Your task to perform on an android device: Add macbook pro 15 inch to the cart on ebay.com, then select checkout. Image 0: 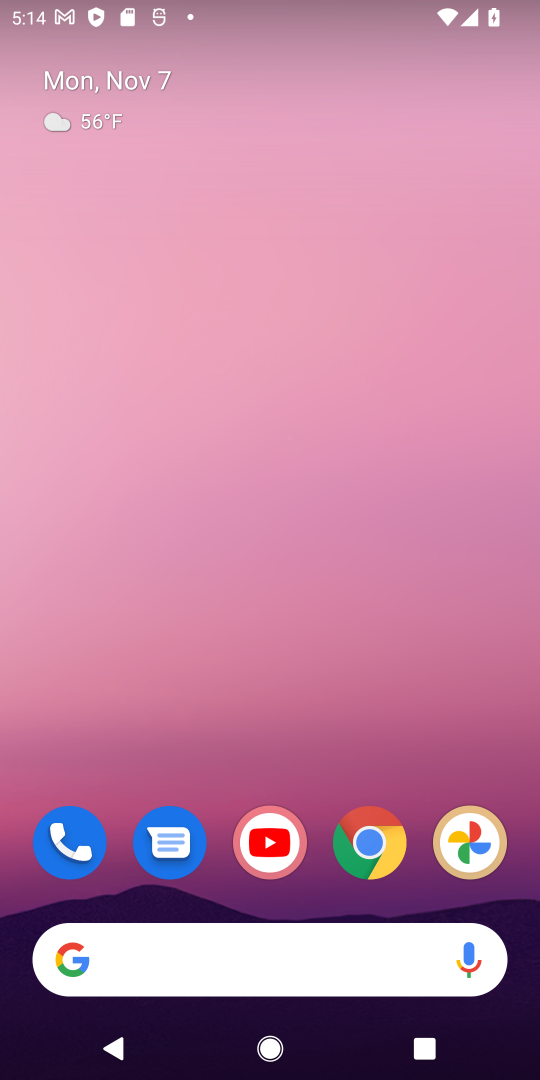
Step 0: click (359, 842)
Your task to perform on an android device: Add macbook pro 15 inch to the cart on ebay.com, then select checkout. Image 1: 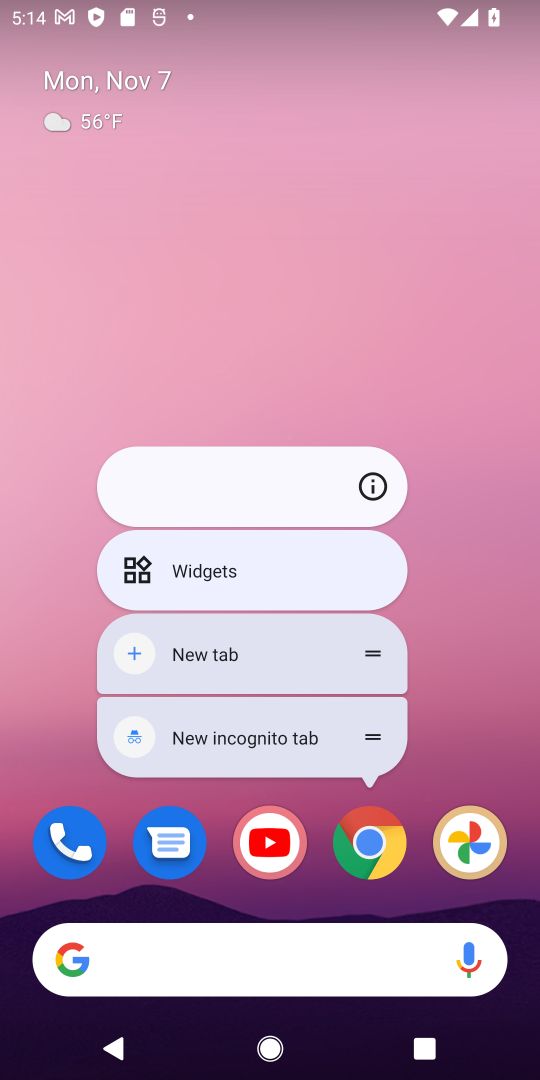
Step 1: click (372, 852)
Your task to perform on an android device: Add macbook pro 15 inch to the cart on ebay.com, then select checkout. Image 2: 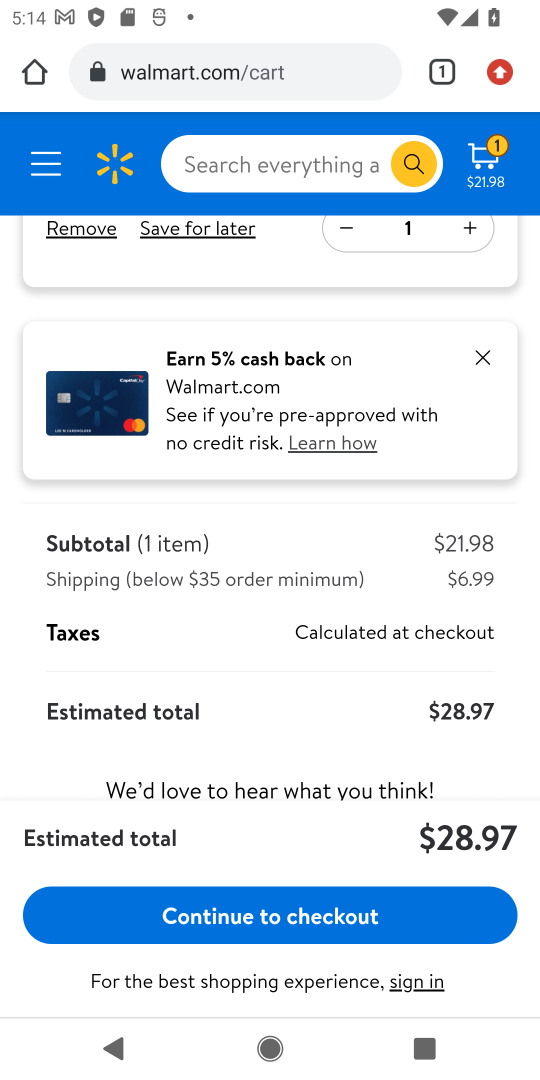
Step 2: click (271, 72)
Your task to perform on an android device: Add macbook pro 15 inch to the cart on ebay.com, then select checkout. Image 3: 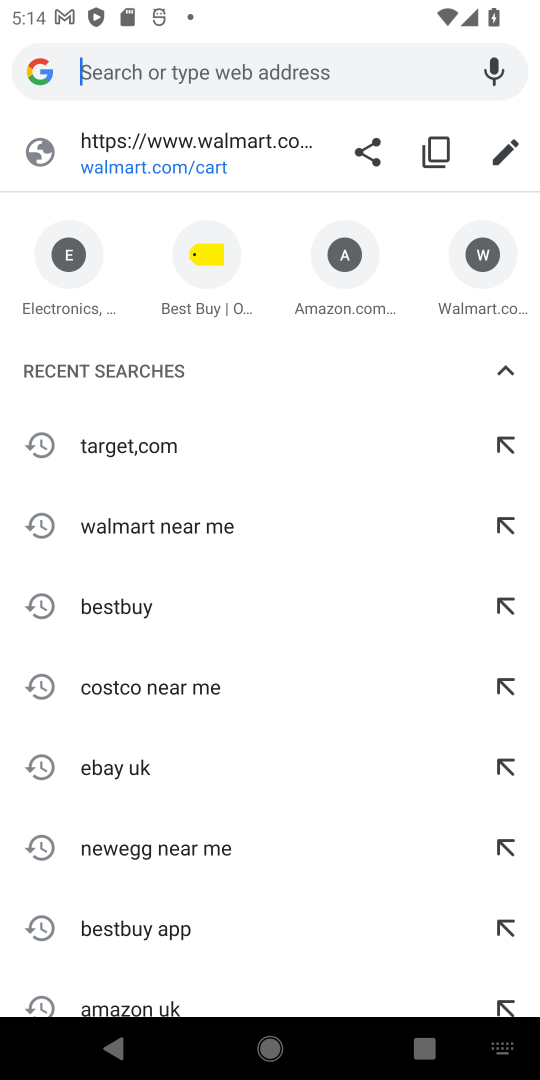
Step 3: click (56, 303)
Your task to perform on an android device: Add macbook pro 15 inch to the cart on ebay.com, then select checkout. Image 4: 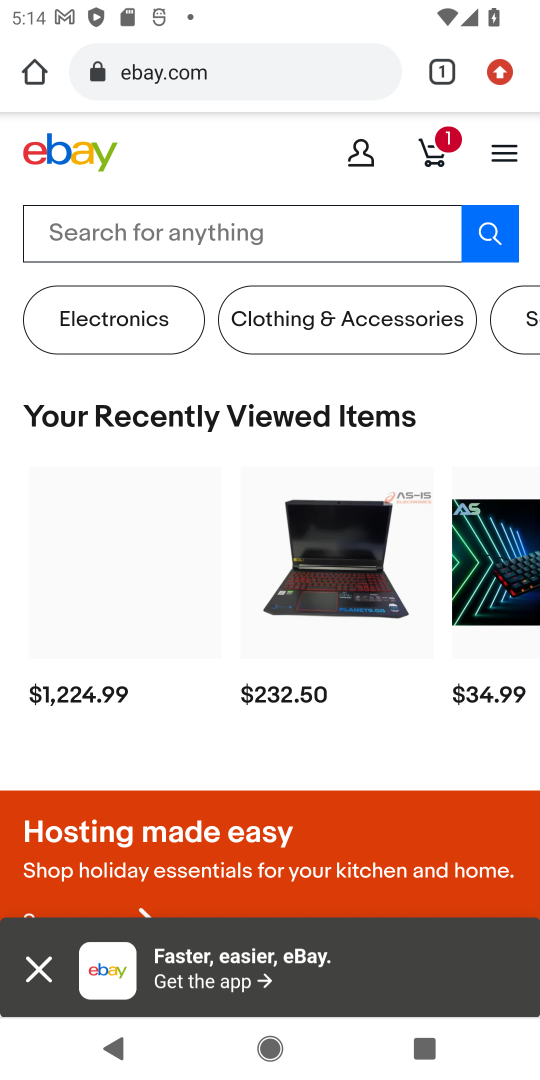
Step 4: click (232, 238)
Your task to perform on an android device: Add macbook pro 15 inch to the cart on ebay.com, then select checkout. Image 5: 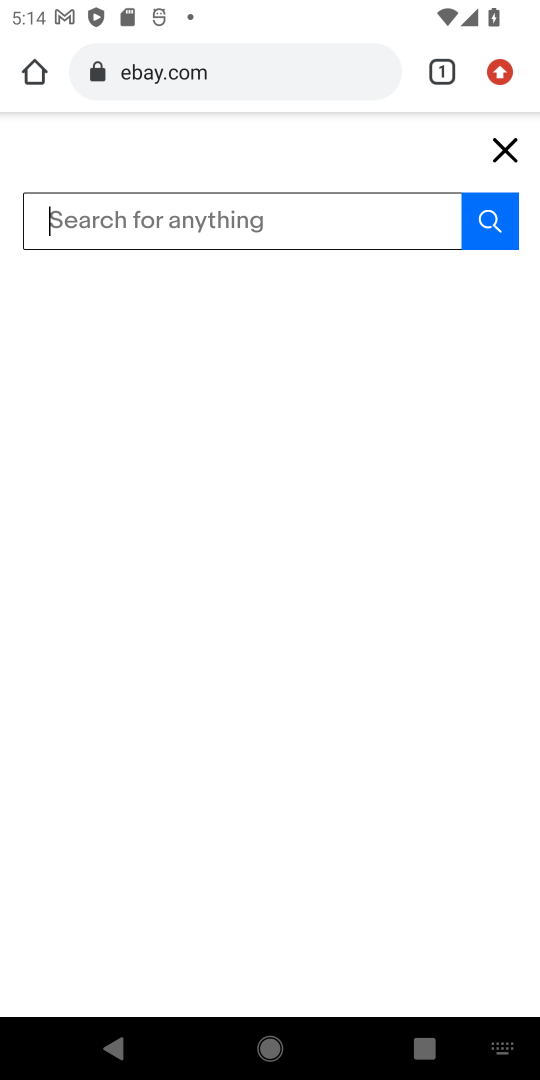
Step 5: type " macbook pro 15 inch"
Your task to perform on an android device: Add macbook pro 15 inch to the cart on ebay.com, then select checkout. Image 6: 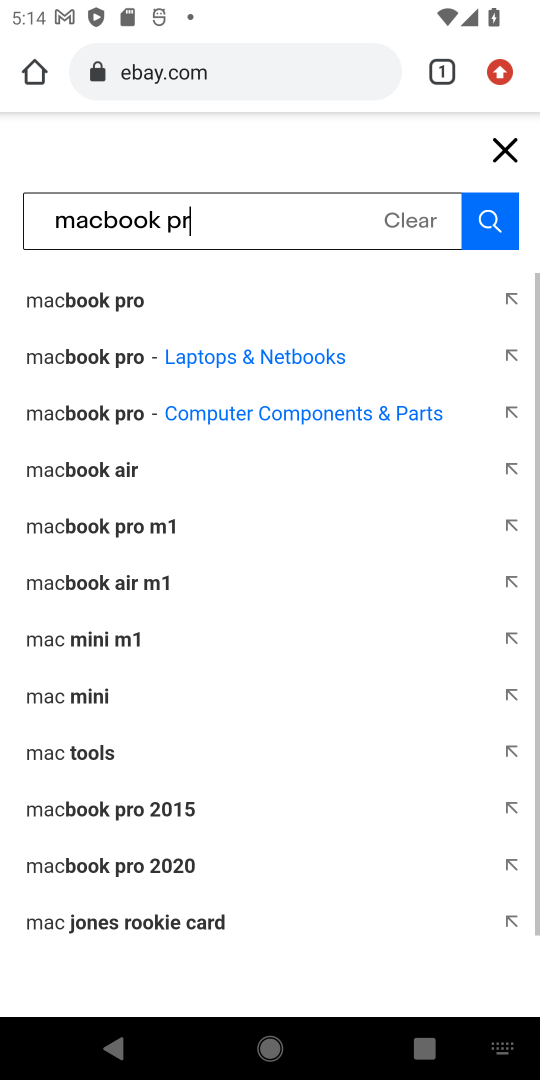
Step 6: press enter
Your task to perform on an android device: Add macbook pro 15 inch to the cart on ebay.com, then select checkout. Image 7: 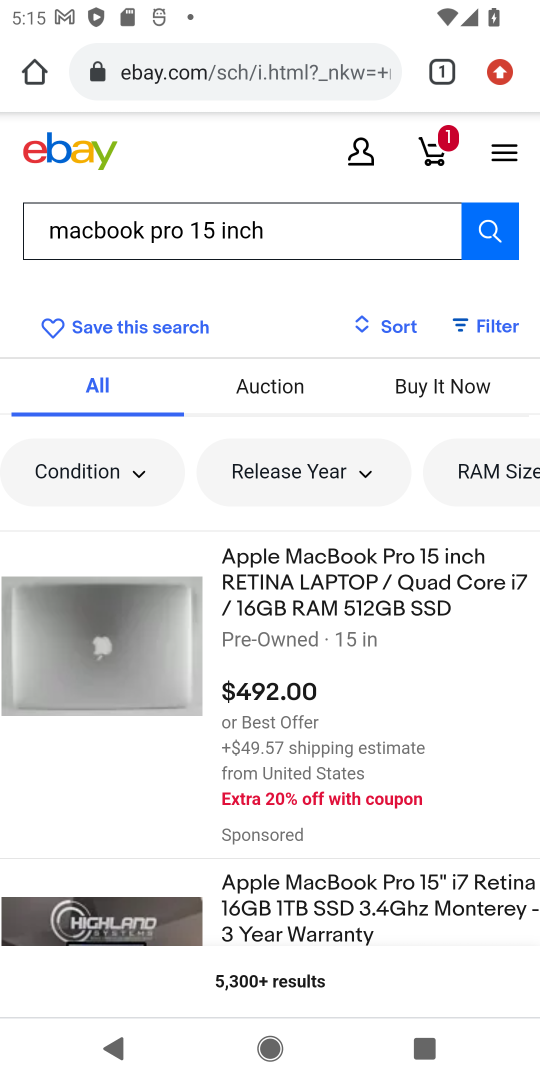
Step 7: click (383, 606)
Your task to perform on an android device: Add macbook pro 15 inch to the cart on ebay.com, then select checkout. Image 8: 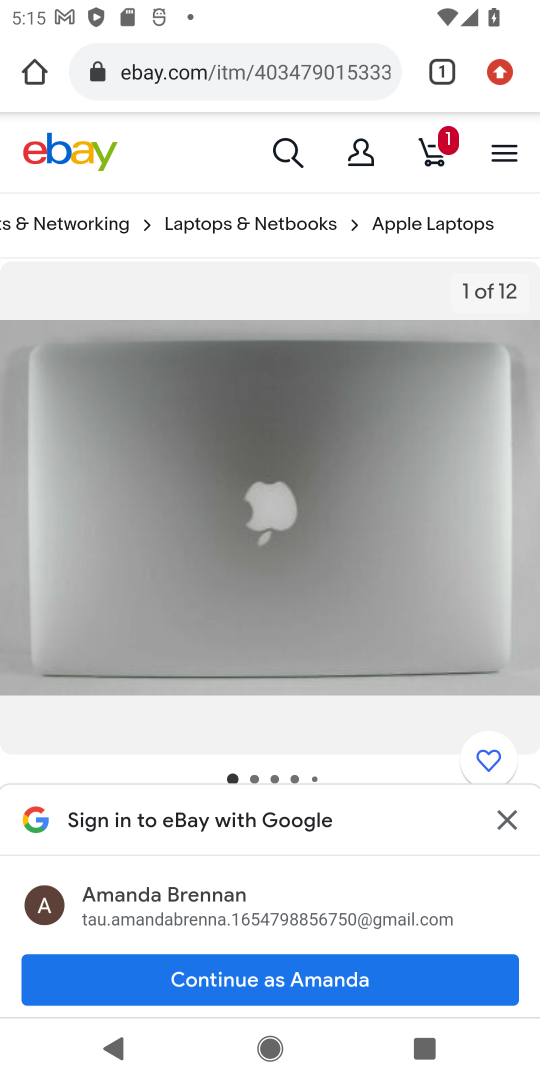
Step 8: drag from (347, 983) to (397, 432)
Your task to perform on an android device: Add macbook pro 15 inch to the cart on ebay.com, then select checkout. Image 9: 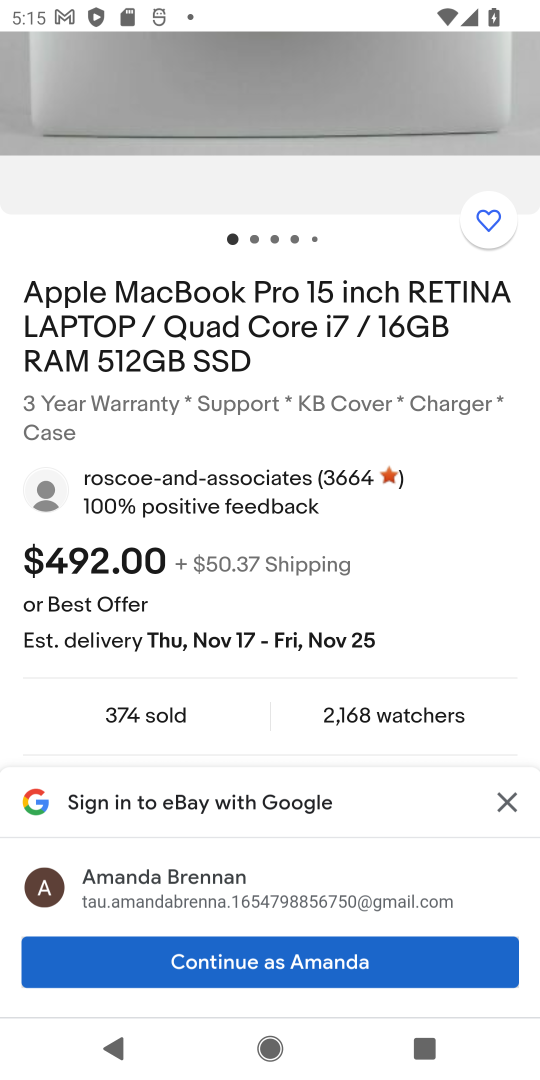
Step 9: click (370, 967)
Your task to perform on an android device: Add macbook pro 15 inch to the cart on ebay.com, then select checkout. Image 10: 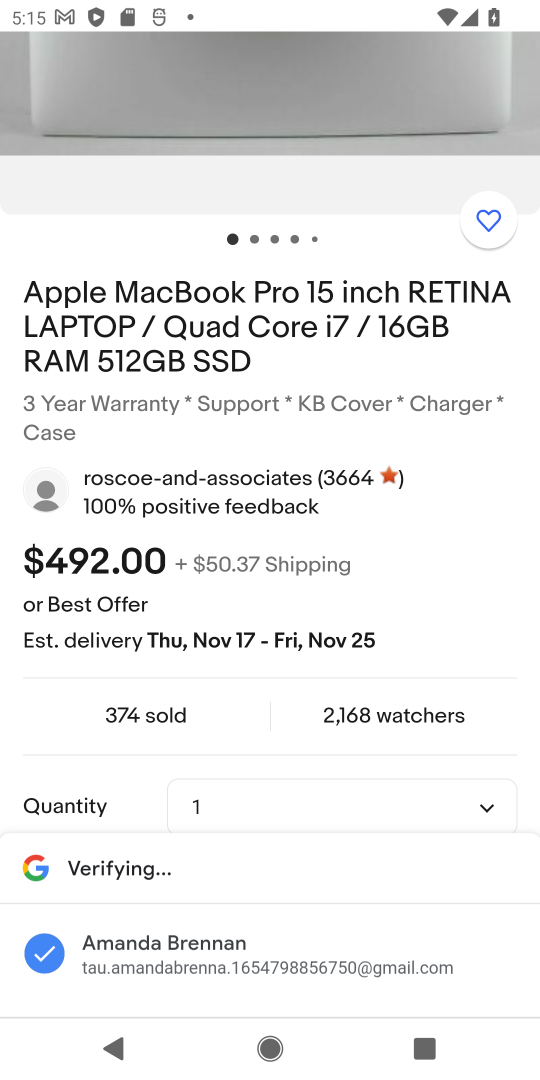
Step 10: drag from (306, 828) to (300, 410)
Your task to perform on an android device: Add macbook pro 15 inch to the cart on ebay.com, then select checkout. Image 11: 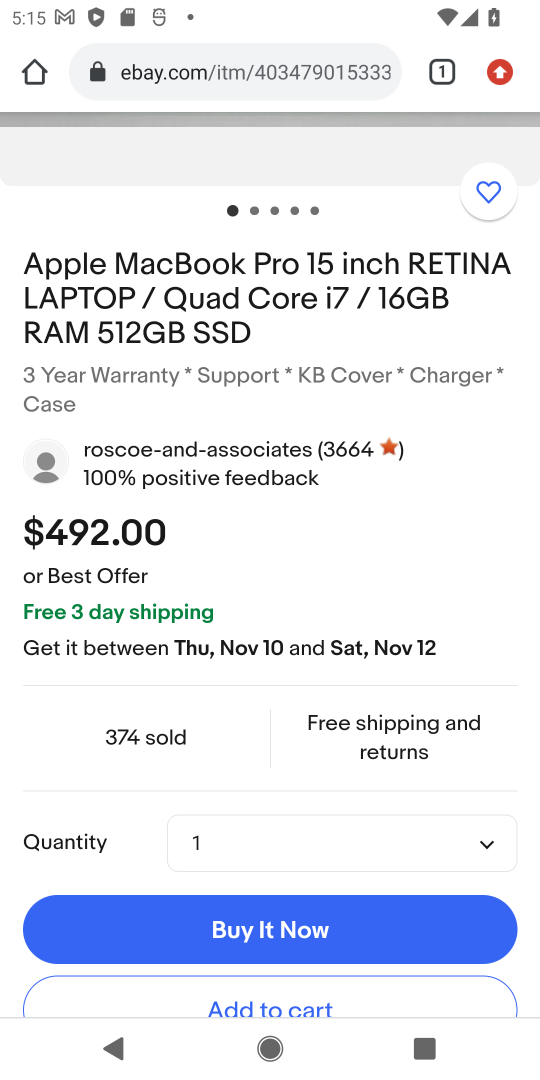
Step 11: drag from (316, 875) to (318, 350)
Your task to perform on an android device: Add macbook pro 15 inch to the cart on ebay.com, then select checkout. Image 12: 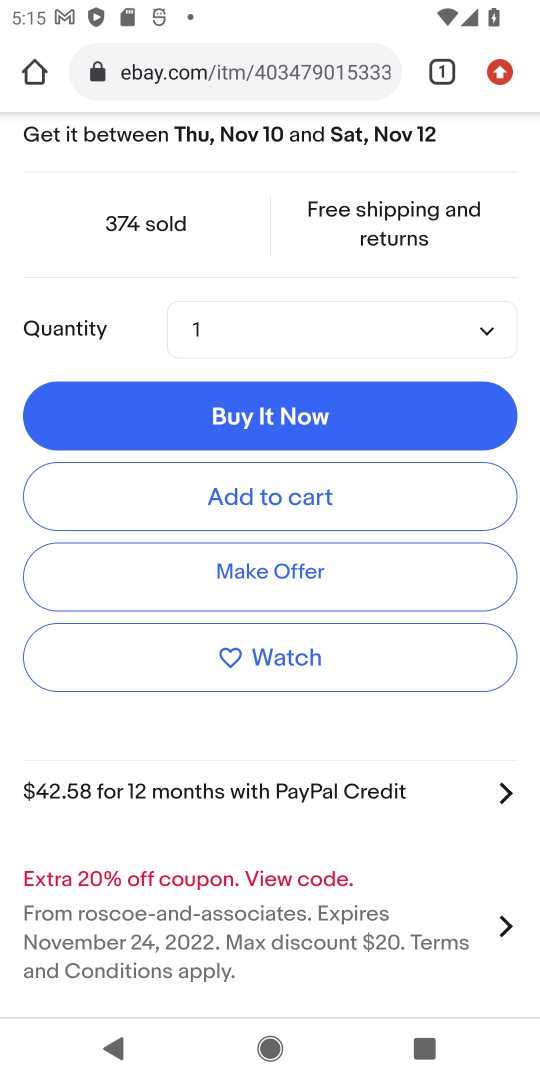
Step 12: click (304, 493)
Your task to perform on an android device: Add macbook pro 15 inch to the cart on ebay.com, then select checkout. Image 13: 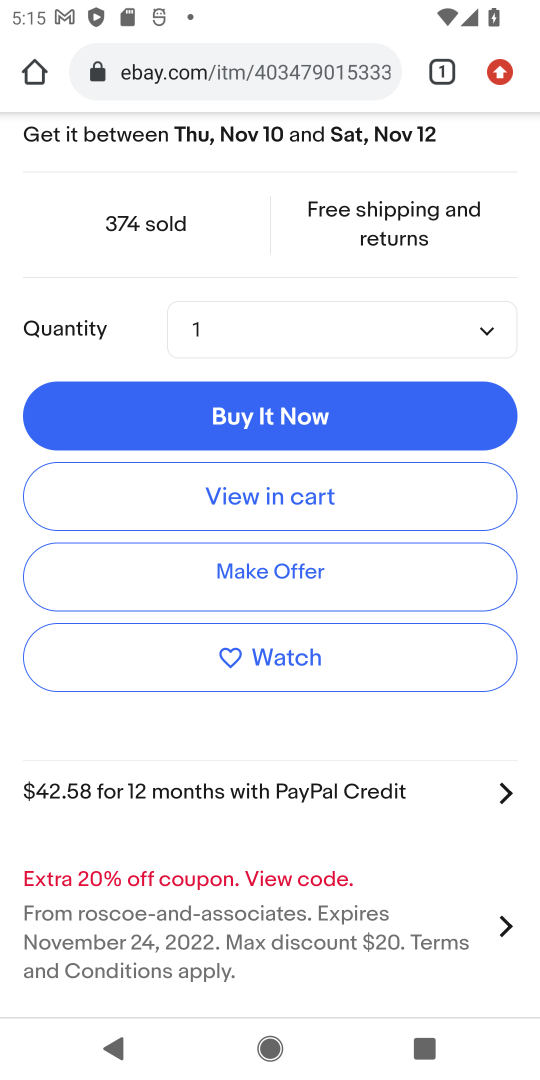
Step 13: click (266, 496)
Your task to perform on an android device: Add macbook pro 15 inch to the cart on ebay.com, then select checkout. Image 14: 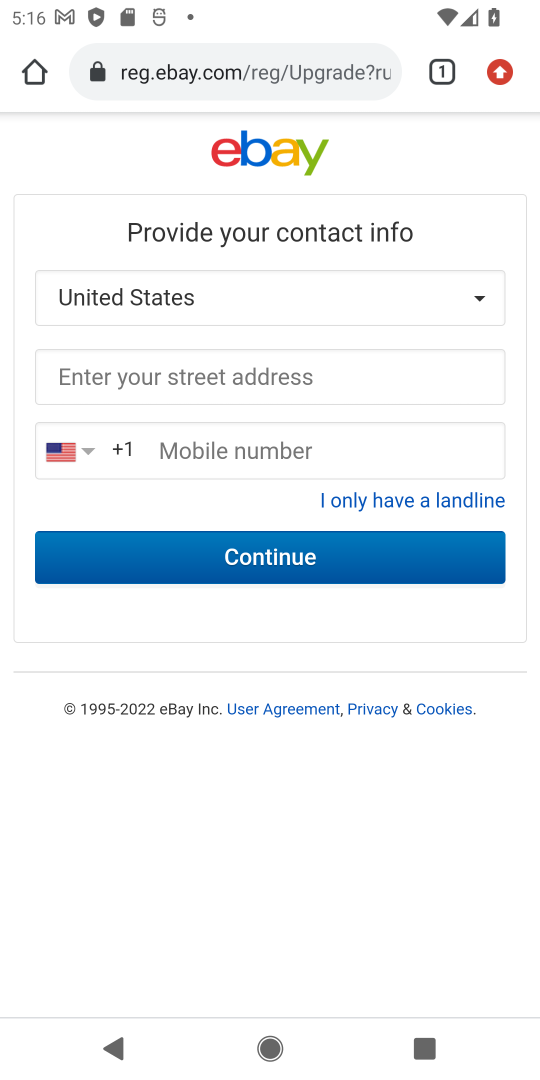
Step 14: task complete